Your task to perform on an android device: Is it going to rain tomorrow? Image 0: 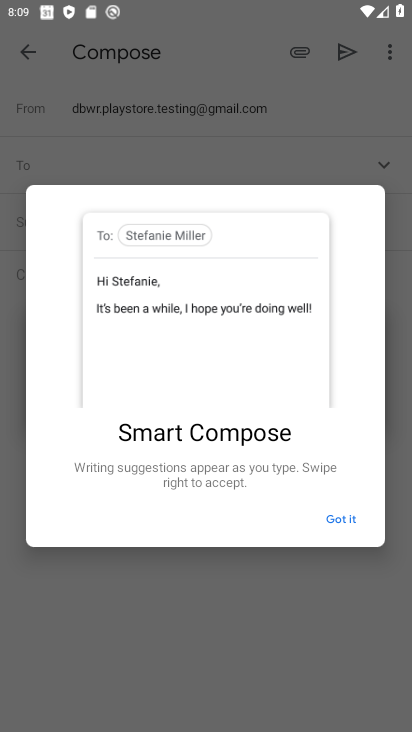
Step 0: click (356, 516)
Your task to perform on an android device: Is it going to rain tomorrow? Image 1: 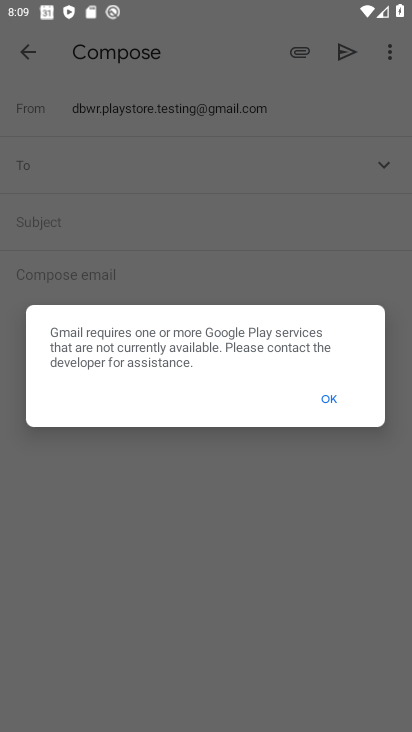
Step 1: press home button
Your task to perform on an android device: Is it going to rain tomorrow? Image 2: 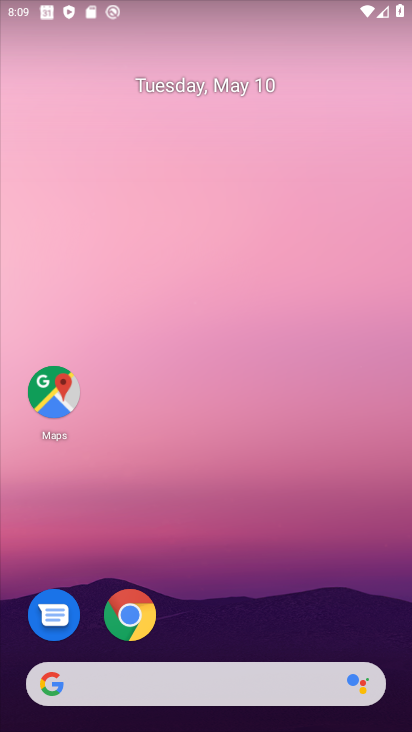
Step 2: drag from (209, 642) to (261, 134)
Your task to perform on an android device: Is it going to rain tomorrow? Image 3: 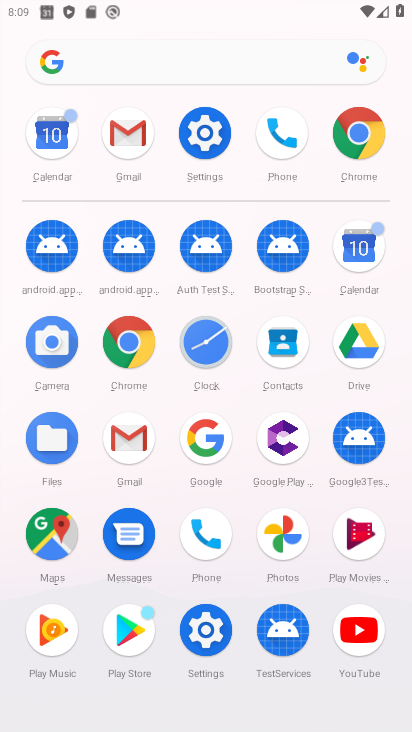
Step 3: click (190, 68)
Your task to perform on an android device: Is it going to rain tomorrow? Image 4: 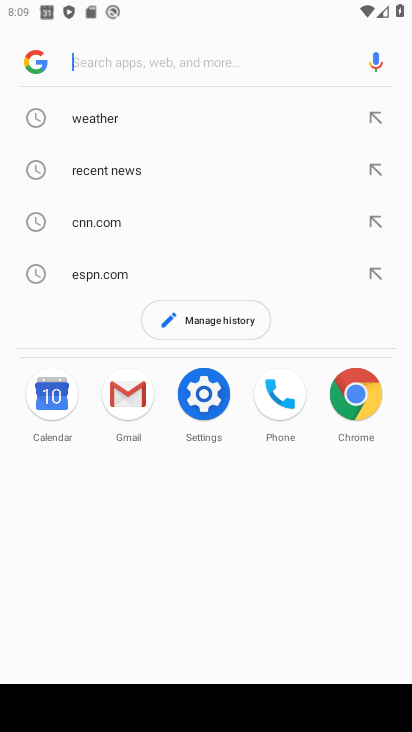
Step 4: type "rain tomorrow"
Your task to perform on an android device: Is it going to rain tomorrow? Image 5: 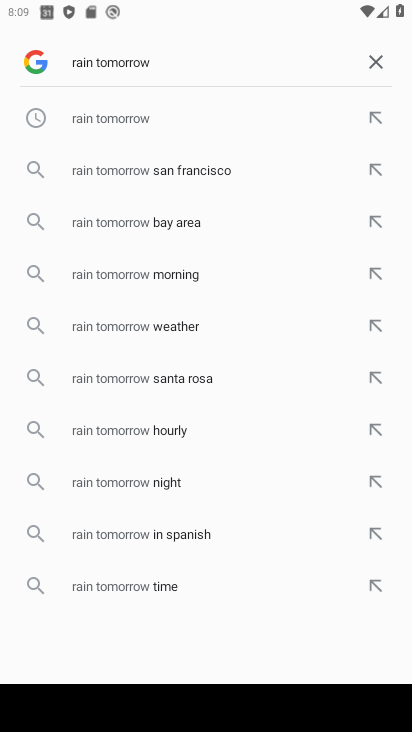
Step 5: click (131, 122)
Your task to perform on an android device: Is it going to rain tomorrow? Image 6: 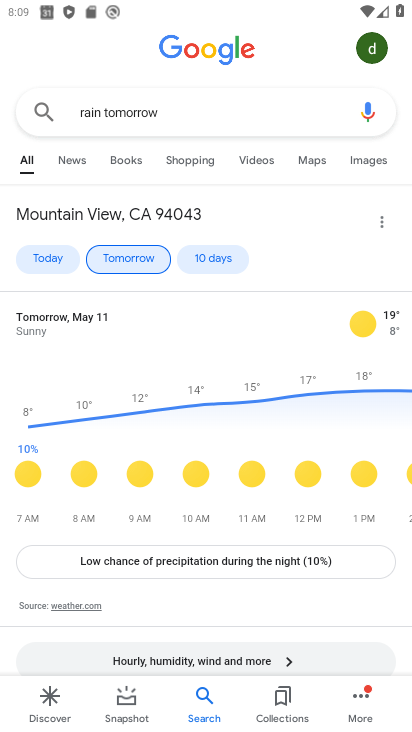
Step 6: task complete